Your task to perform on an android device: Open CNN.com Image 0: 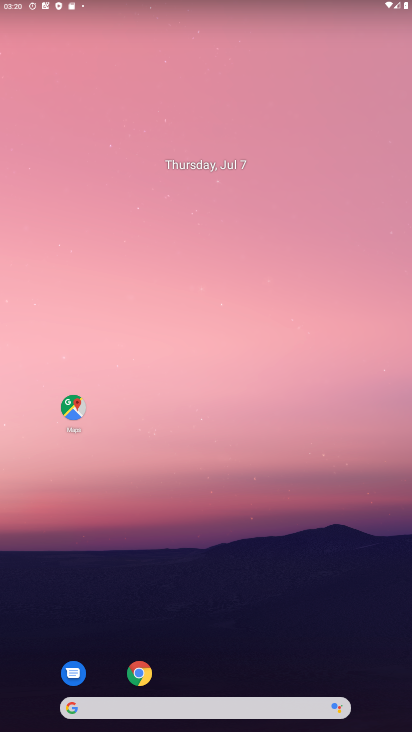
Step 0: click (134, 674)
Your task to perform on an android device: Open CNN.com Image 1: 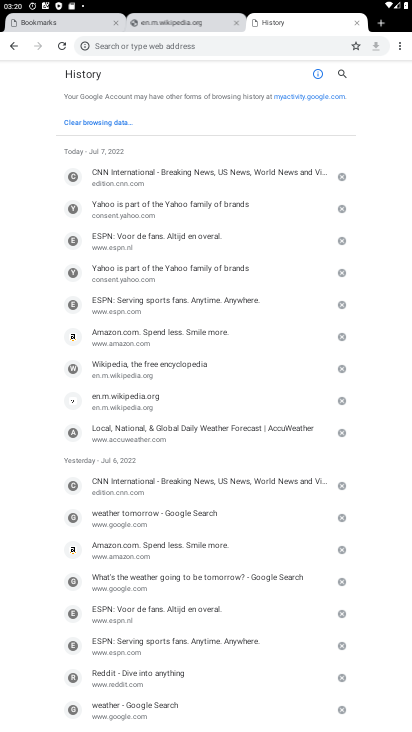
Step 1: click (382, 26)
Your task to perform on an android device: Open CNN.com Image 2: 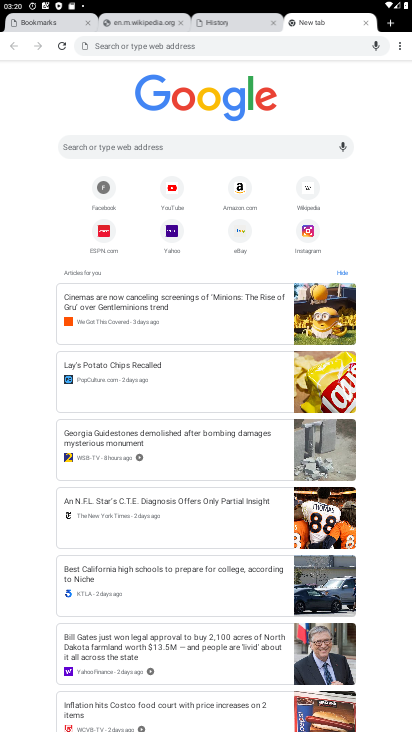
Step 2: click (119, 147)
Your task to perform on an android device: Open CNN.com Image 3: 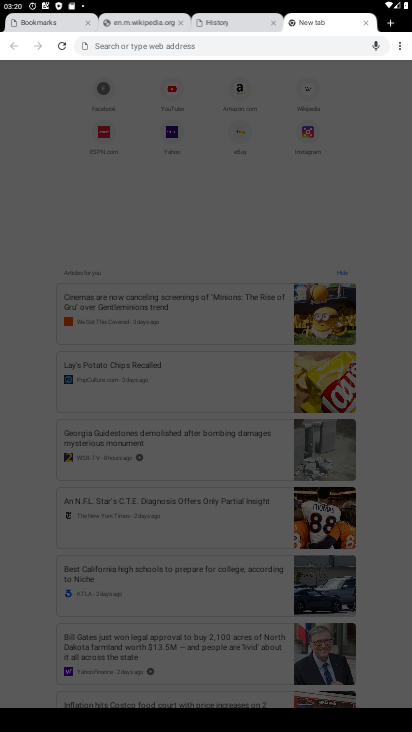
Step 3: type "CNN.com"
Your task to perform on an android device: Open CNN.com Image 4: 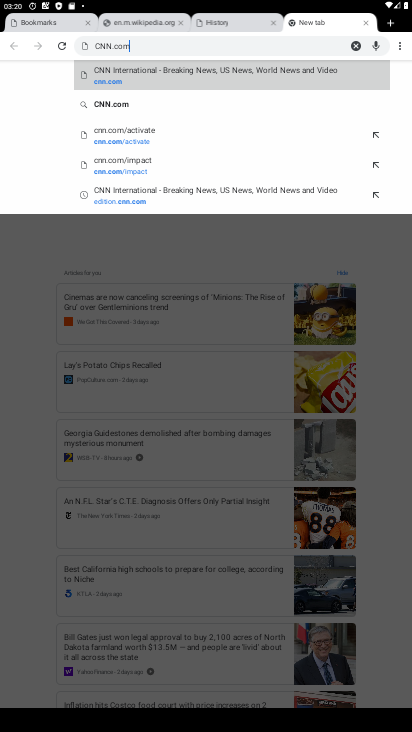
Step 4: click (134, 71)
Your task to perform on an android device: Open CNN.com Image 5: 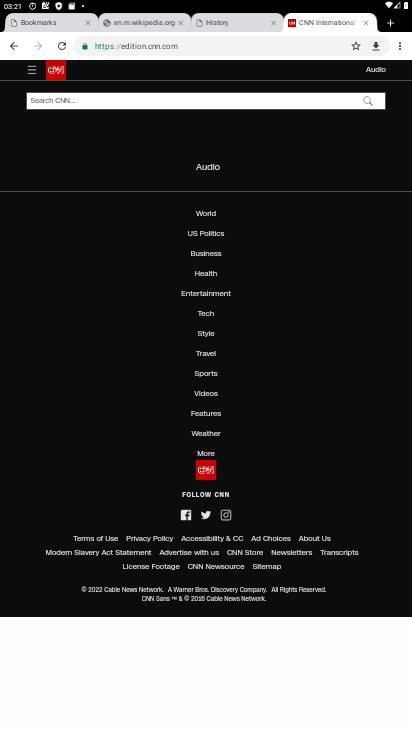
Step 5: task complete